Your task to perform on an android device: Go to Maps Image 0: 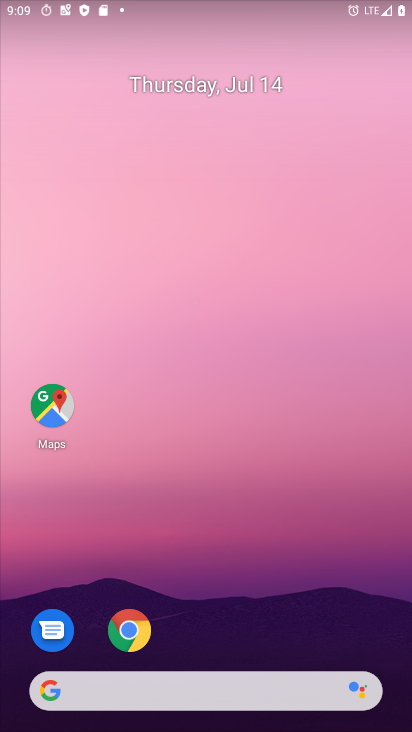
Step 0: drag from (203, 596) to (179, 165)
Your task to perform on an android device: Go to Maps Image 1: 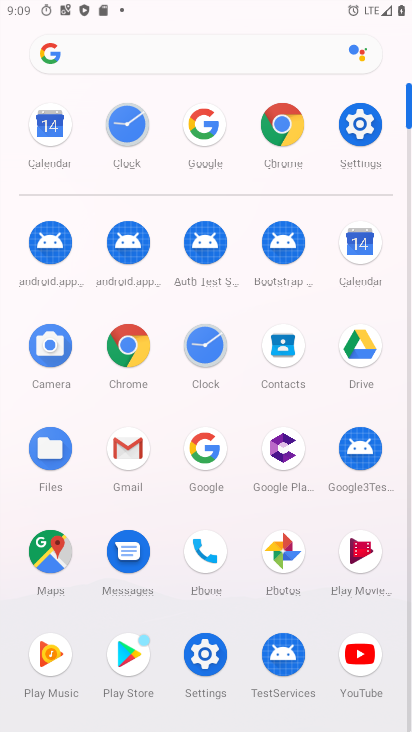
Step 1: click (53, 550)
Your task to perform on an android device: Go to Maps Image 2: 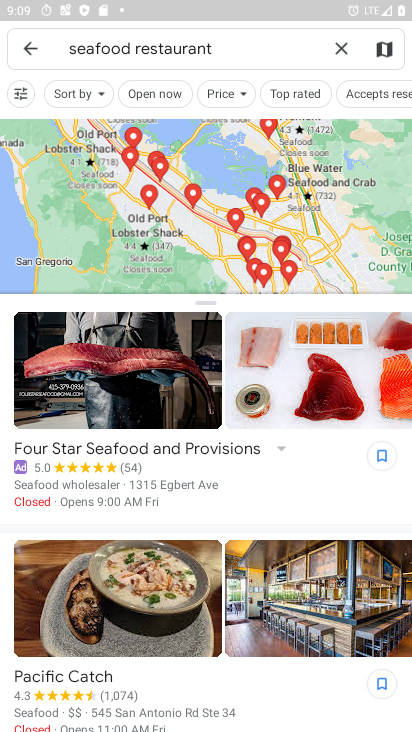
Step 2: task complete